Your task to perform on an android device: turn on priority inbox in the gmail app Image 0: 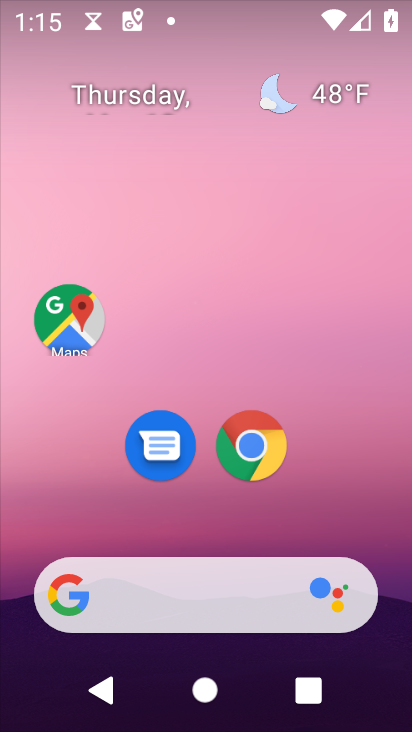
Step 0: drag from (335, 500) to (335, 57)
Your task to perform on an android device: turn on priority inbox in the gmail app Image 1: 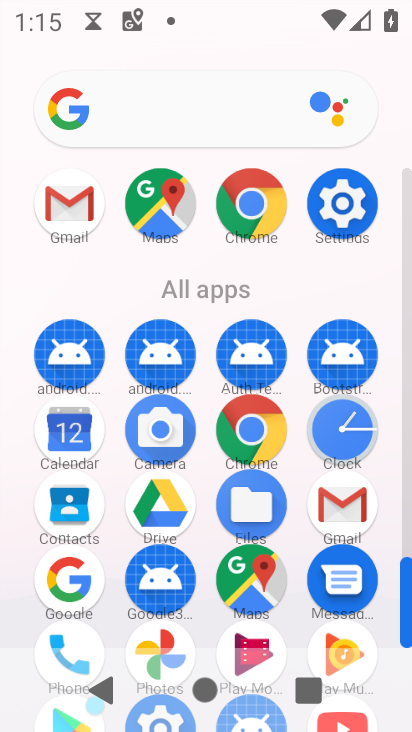
Step 1: click (84, 191)
Your task to perform on an android device: turn on priority inbox in the gmail app Image 2: 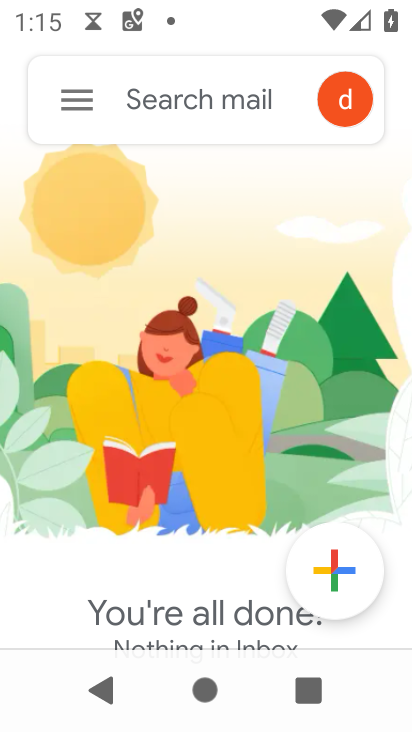
Step 2: click (71, 97)
Your task to perform on an android device: turn on priority inbox in the gmail app Image 3: 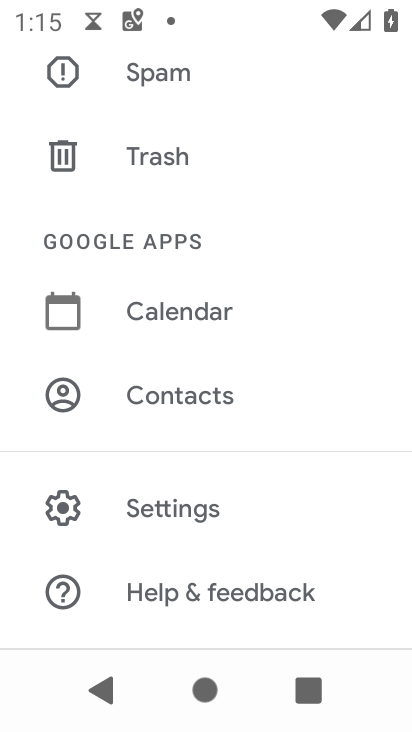
Step 3: click (168, 505)
Your task to perform on an android device: turn on priority inbox in the gmail app Image 4: 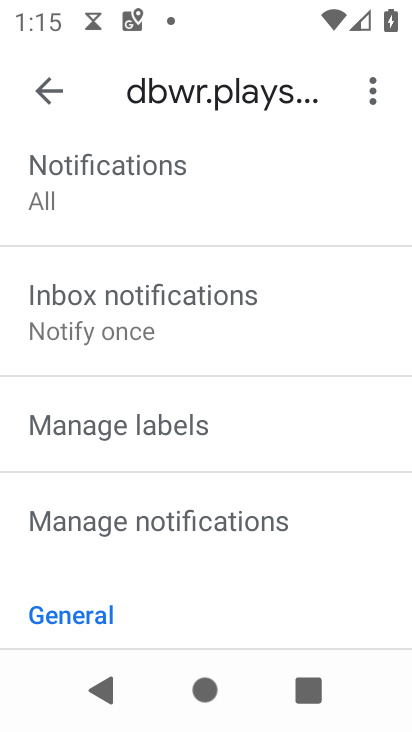
Step 4: drag from (276, 187) to (281, 606)
Your task to perform on an android device: turn on priority inbox in the gmail app Image 5: 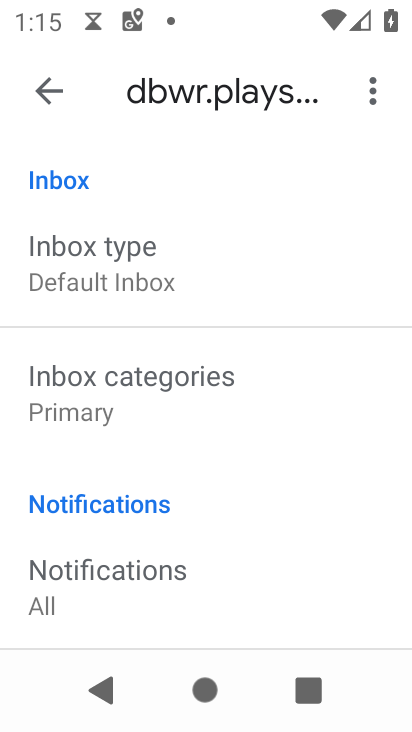
Step 5: click (122, 271)
Your task to perform on an android device: turn on priority inbox in the gmail app Image 6: 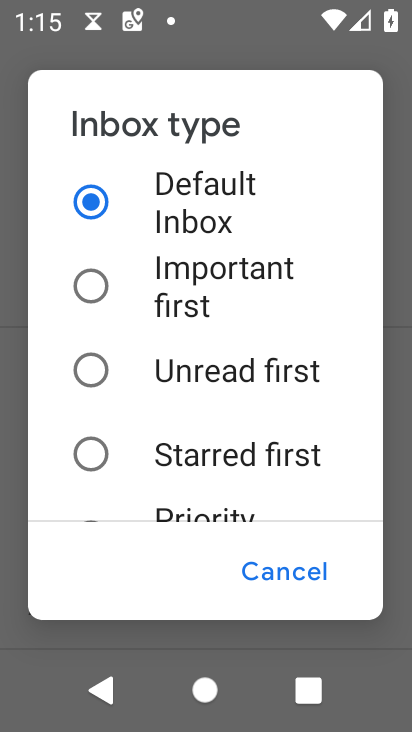
Step 6: drag from (101, 473) to (110, 156)
Your task to perform on an android device: turn on priority inbox in the gmail app Image 7: 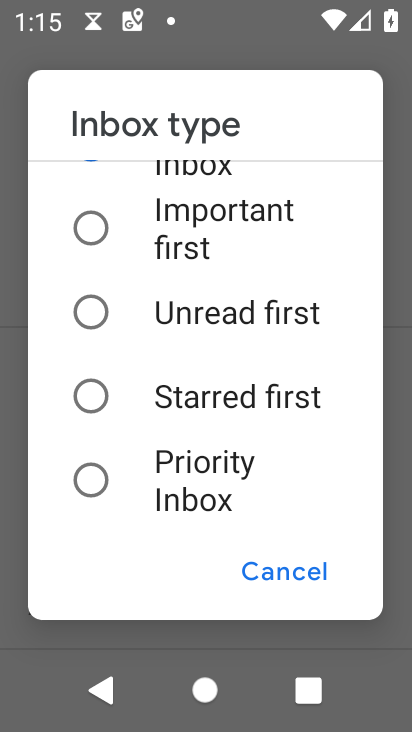
Step 7: click (92, 462)
Your task to perform on an android device: turn on priority inbox in the gmail app Image 8: 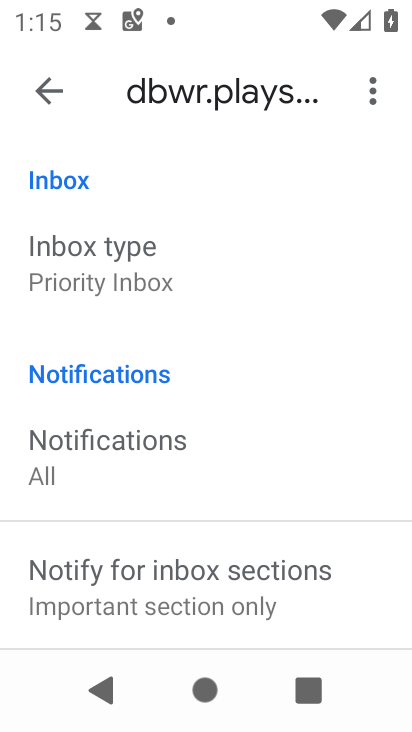
Step 8: task complete